Your task to perform on an android device: Go to internet settings Image 0: 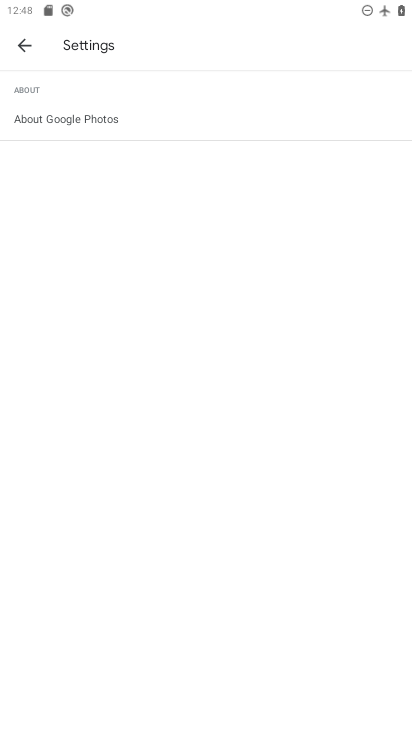
Step 0: press home button
Your task to perform on an android device: Go to internet settings Image 1: 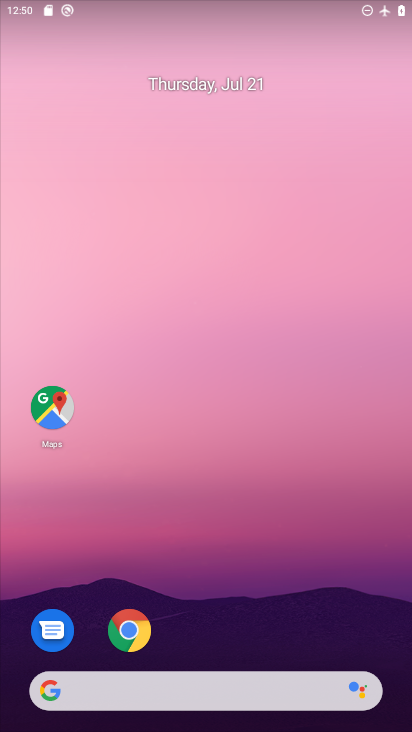
Step 1: drag from (395, 608) to (410, 253)
Your task to perform on an android device: Go to internet settings Image 2: 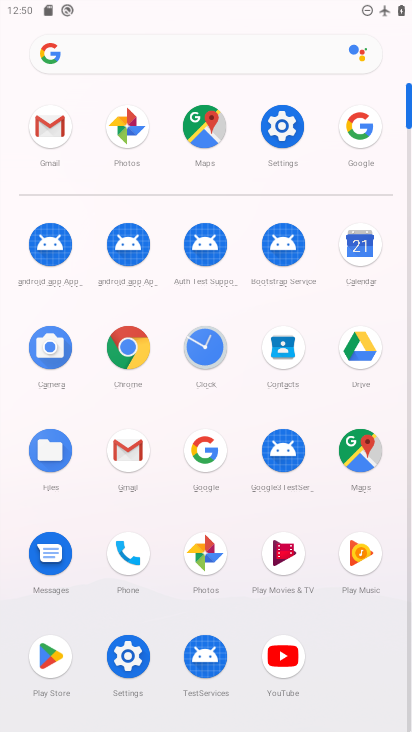
Step 2: click (272, 124)
Your task to perform on an android device: Go to internet settings Image 3: 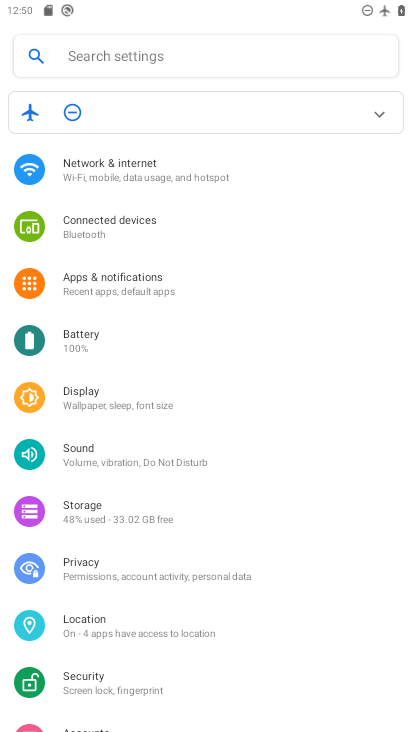
Step 3: click (152, 171)
Your task to perform on an android device: Go to internet settings Image 4: 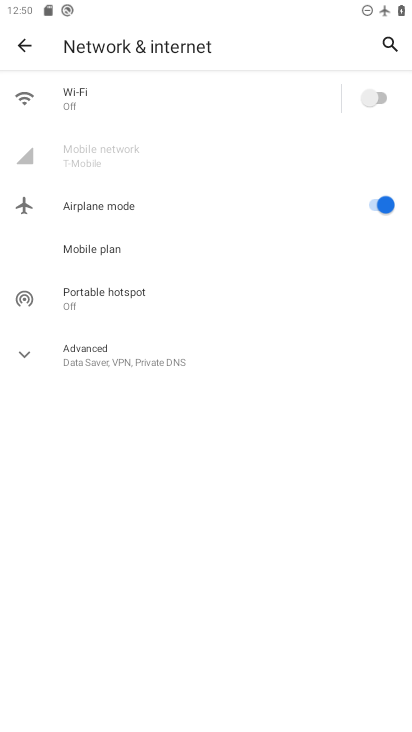
Step 4: click (47, 344)
Your task to perform on an android device: Go to internet settings Image 5: 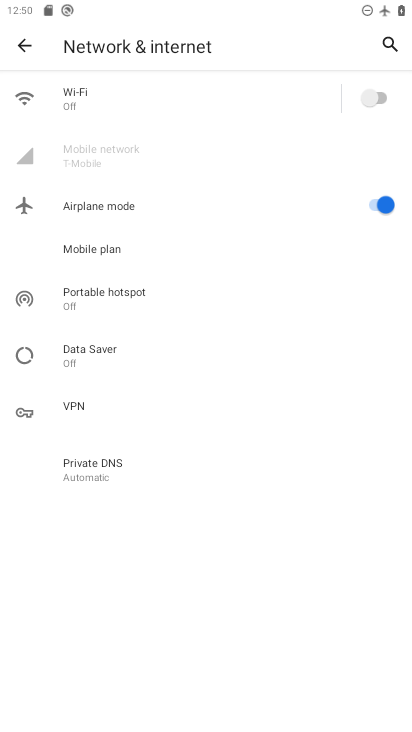
Step 5: task complete